Your task to perform on an android device: open the mobile data screen to see how much data has been used Image 0: 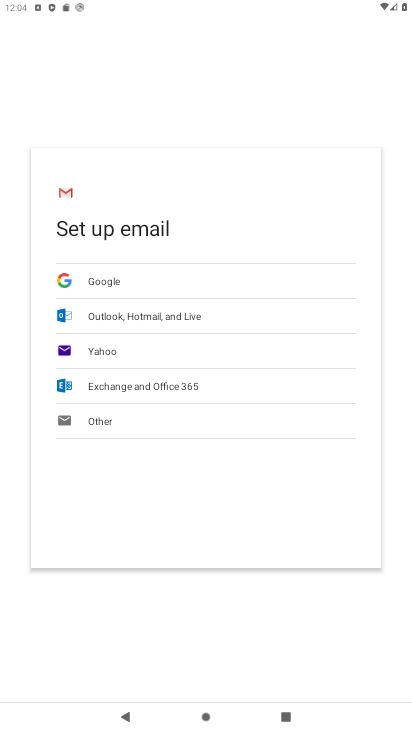
Step 0: press home button
Your task to perform on an android device: open the mobile data screen to see how much data has been used Image 1: 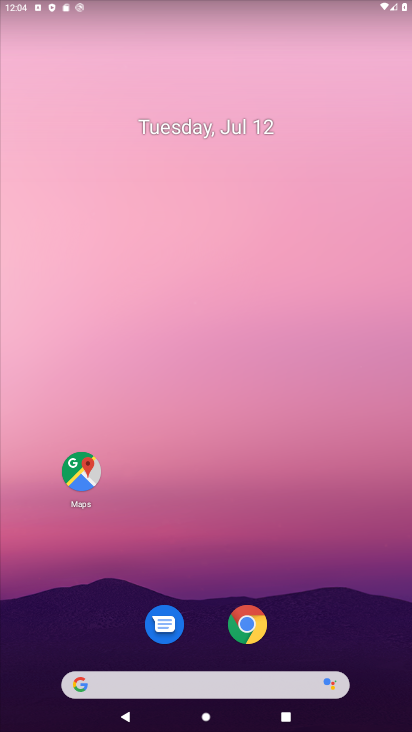
Step 1: drag from (200, 652) to (210, 227)
Your task to perform on an android device: open the mobile data screen to see how much data has been used Image 2: 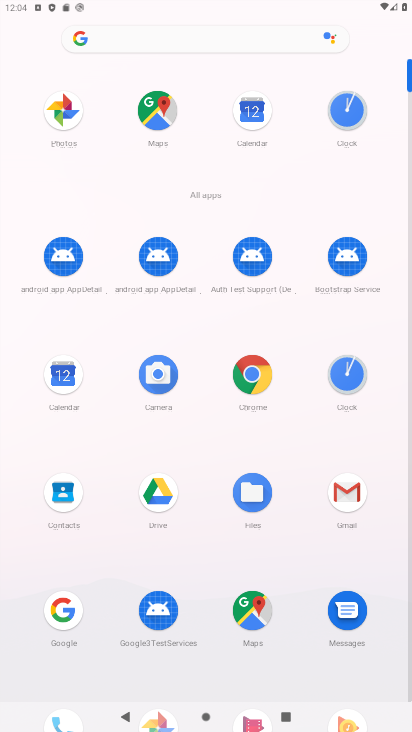
Step 2: drag from (211, 503) to (206, 163)
Your task to perform on an android device: open the mobile data screen to see how much data has been used Image 3: 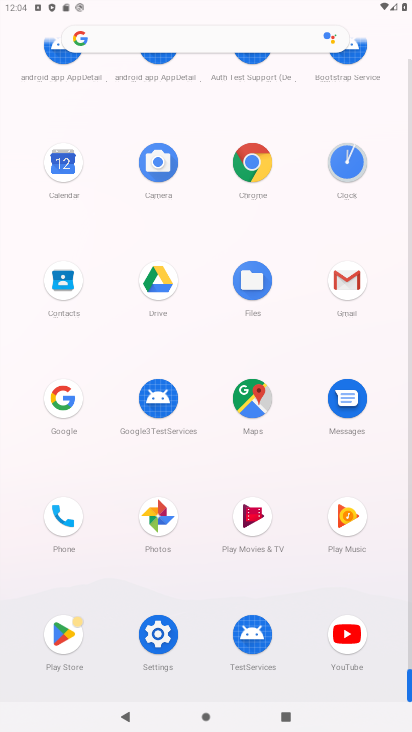
Step 3: click (159, 630)
Your task to perform on an android device: open the mobile data screen to see how much data has been used Image 4: 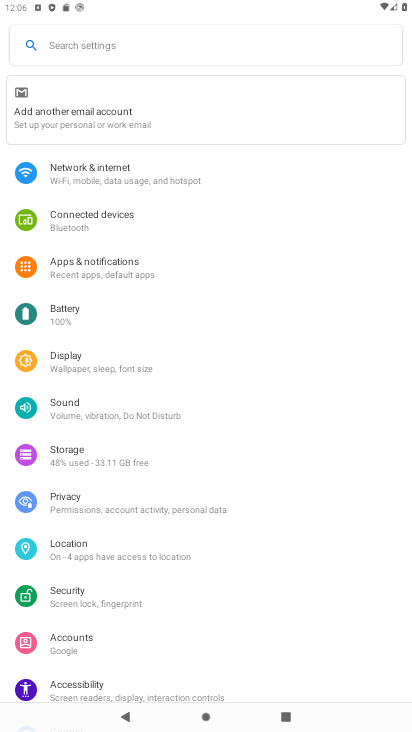
Step 4: click (125, 165)
Your task to perform on an android device: open the mobile data screen to see how much data has been used Image 5: 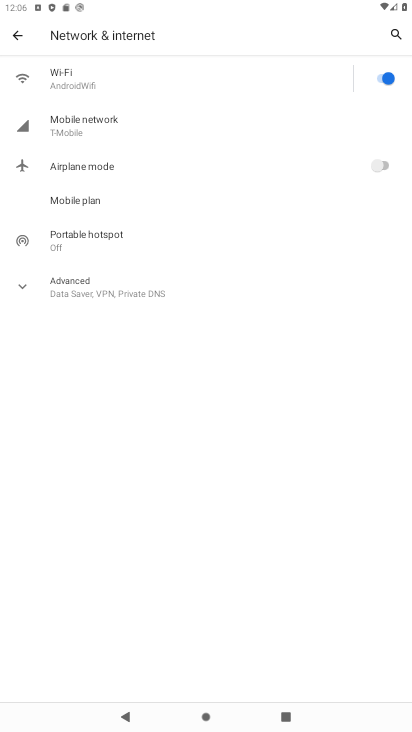
Step 5: click (112, 132)
Your task to perform on an android device: open the mobile data screen to see how much data has been used Image 6: 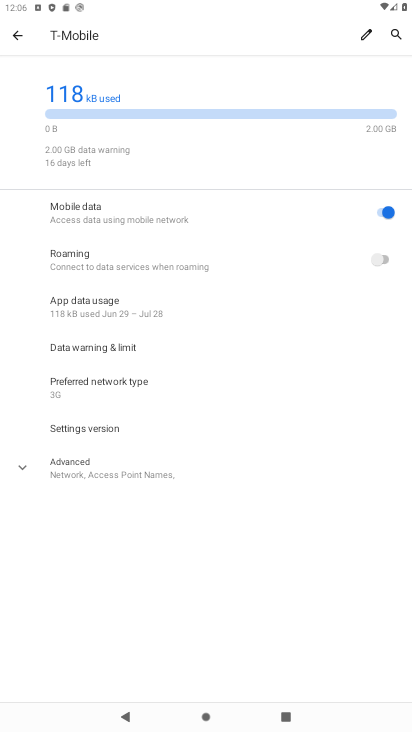
Step 6: click (161, 310)
Your task to perform on an android device: open the mobile data screen to see how much data has been used Image 7: 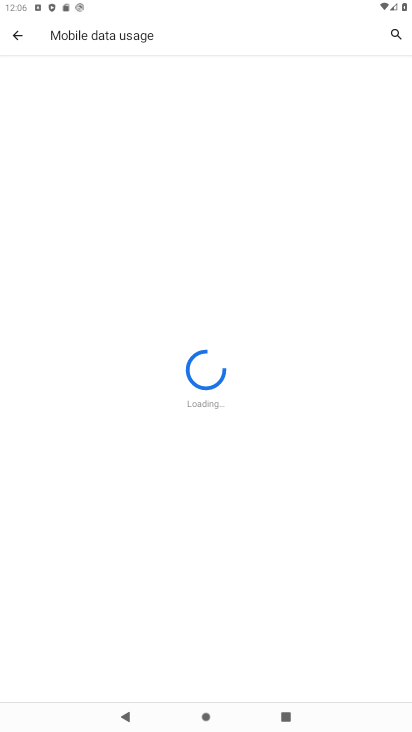
Step 7: task complete